Your task to perform on an android device: change text size in settings app Image 0: 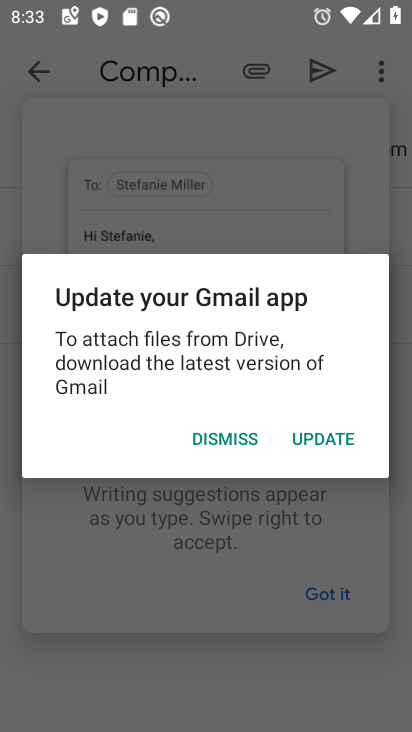
Step 0: click (211, 619)
Your task to perform on an android device: change text size in settings app Image 1: 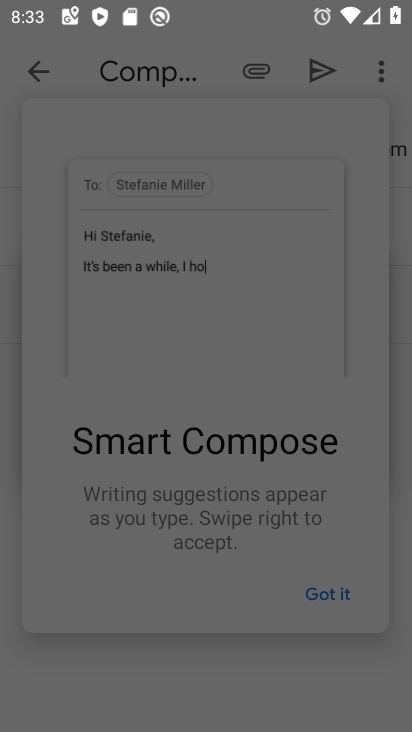
Step 1: press home button
Your task to perform on an android device: change text size in settings app Image 2: 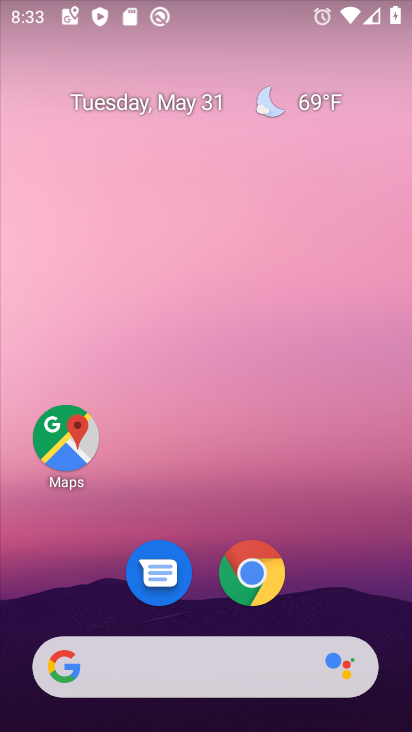
Step 2: drag from (201, 531) to (223, 17)
Your task to perform on an android device: change text size in settings app Image 3: 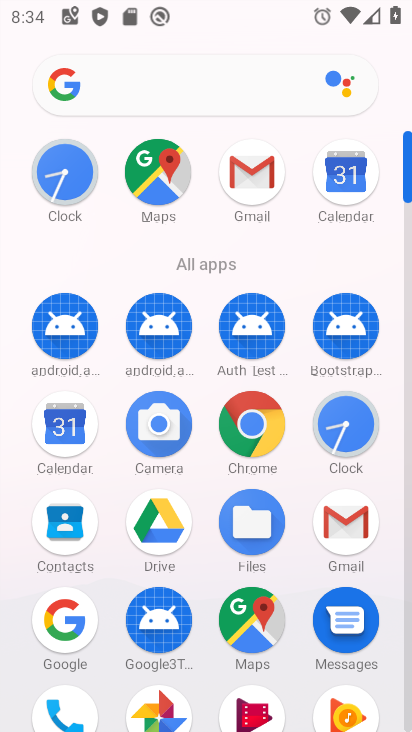
Step 3: drag from (206, 581) to (233, 158)
Your task to perform on an android device: change text size in settings app Image 4: 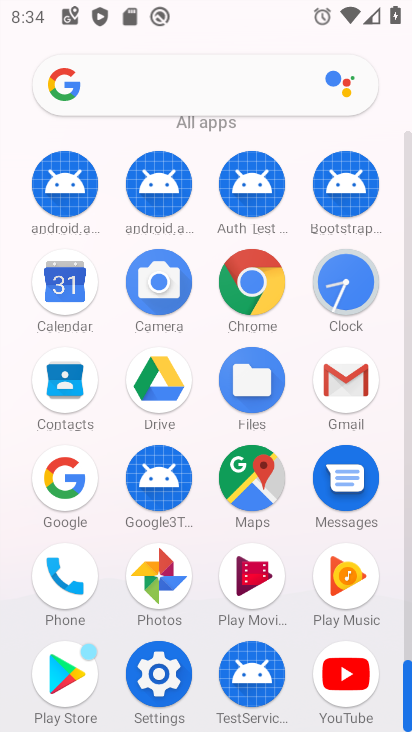
Step 4: click (167, 666)
Your task to perform on an android device: change text size in settings app Image 5: 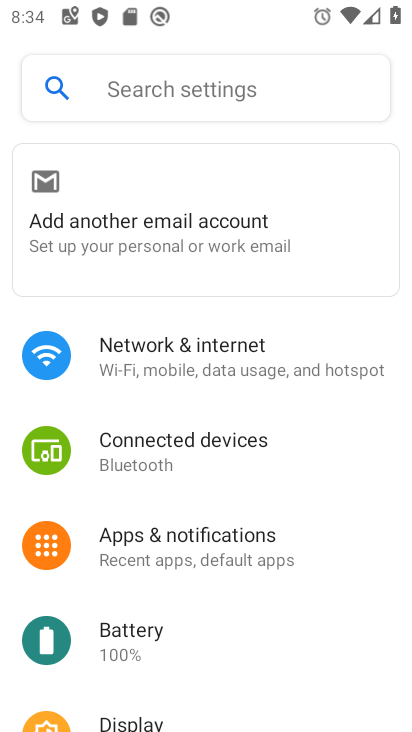
Step 5: drag from (209, 636) to (256, 253)
Your task to perform on an android device: change text size in settings app Image 6: 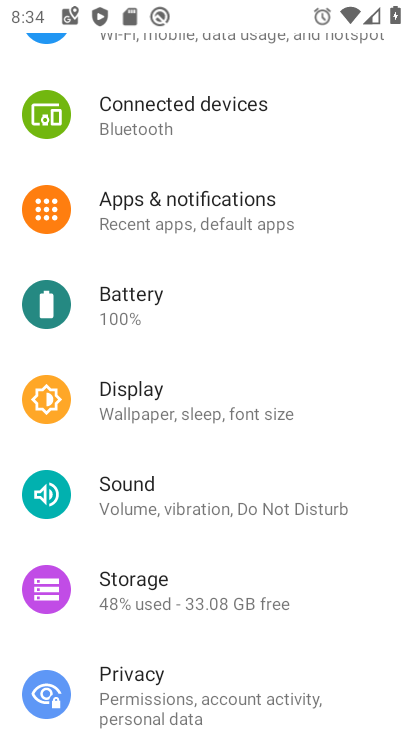
Step 6: click (177, 397)
Your task to perform on an android device: change text size in settings app Image 7: 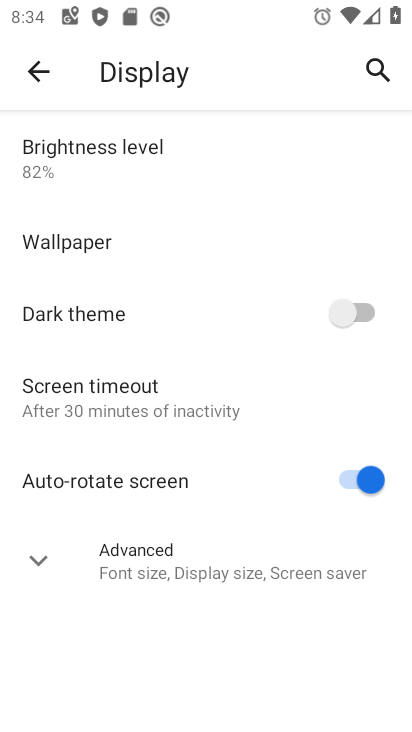
Step 7: click (34, 561)
Your task to perform on an android device: change text size in settings app Image 8: 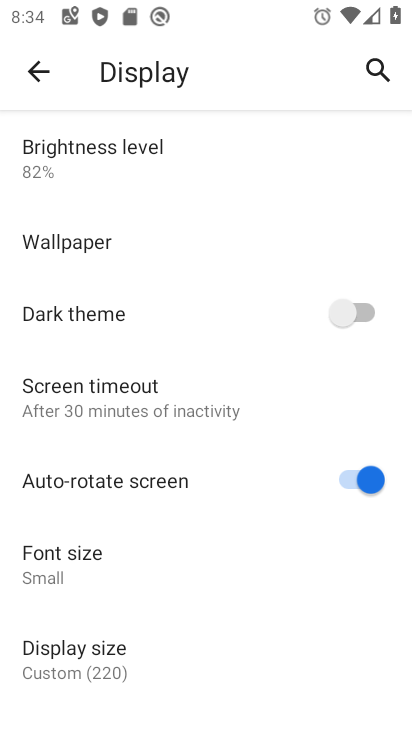
Step 8: click (89, 564)
Your task to perform on an android device: change text size in settings app Image 9: 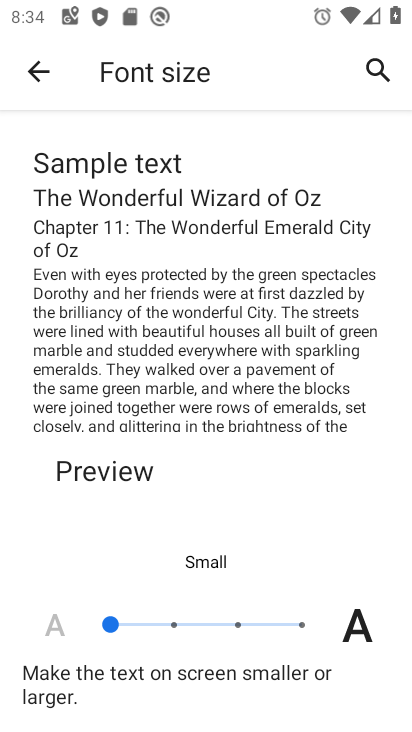
Step 9: click (172, 627)
Your task to perform on an android device: change text size in settings app Image 10: 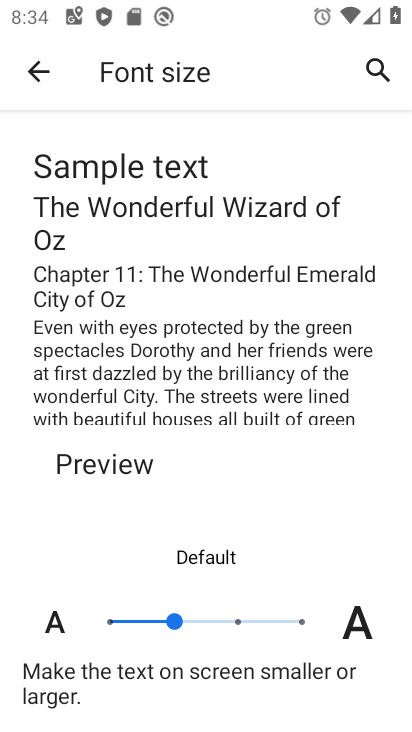
Step 10: task complete